Your task to perform on an android device: Open Google Chrome and click the shortcut for Amazon.com Image 0: 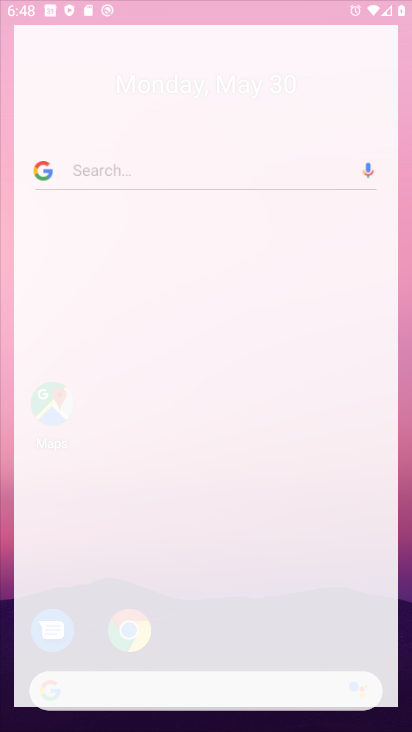
Step 0: drag from (311, 643) to (302, 86)
Your task to perform on an android device: Open Google Chrome and click the shortcut for Amazon.com Image 1: 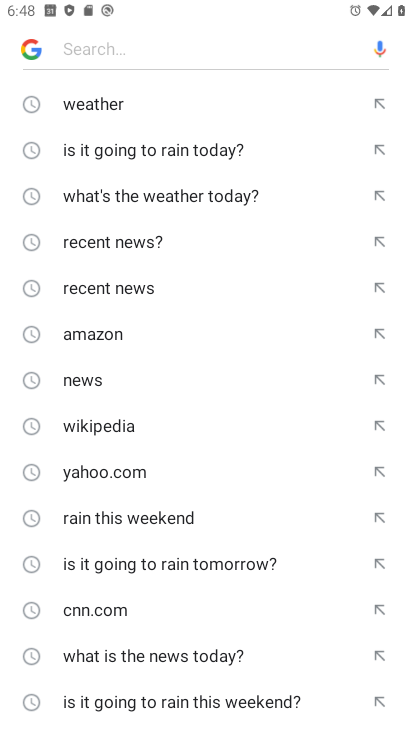
Step 1: press home button
Your task to perform on an android device: Open Google Chrome and click the shortcut for Amazon.com Image 2: 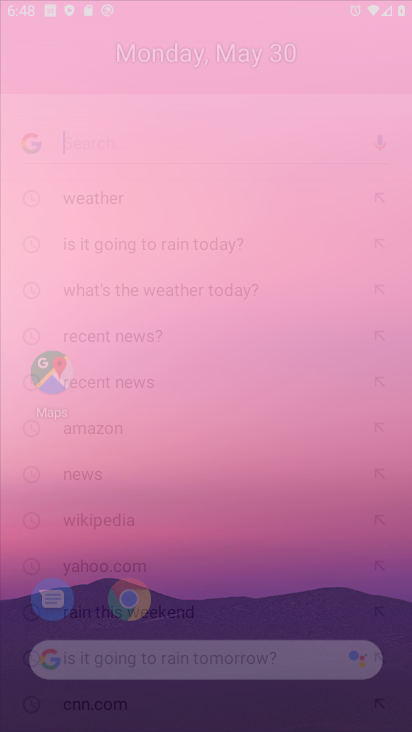
Step 2: drag from (334, 687) to (278, 40)
Your task to perform on an android device: Open Google Chrome and click the shortcut for Amazon.com Image 3: 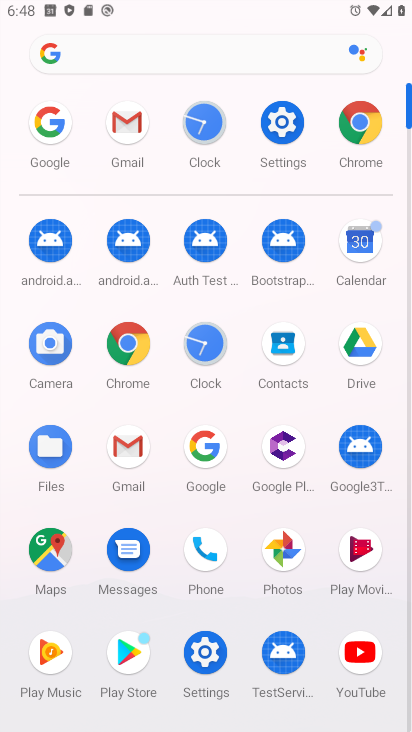
Step 3: click (369, 129)
Your task to perform on an android device: Open Google Chrome and click the shortcut for Amazon.com Image 4: 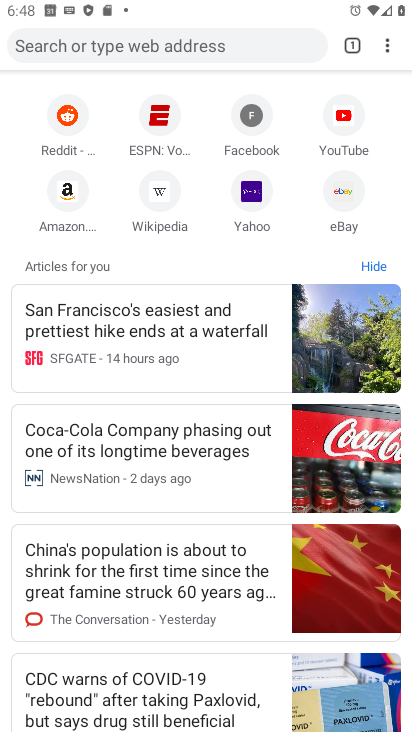
Step 4: click (356, 137)
Your task to perform on an android device: Open Google Chrome and click the shortcut for Amazon.com Image 5: 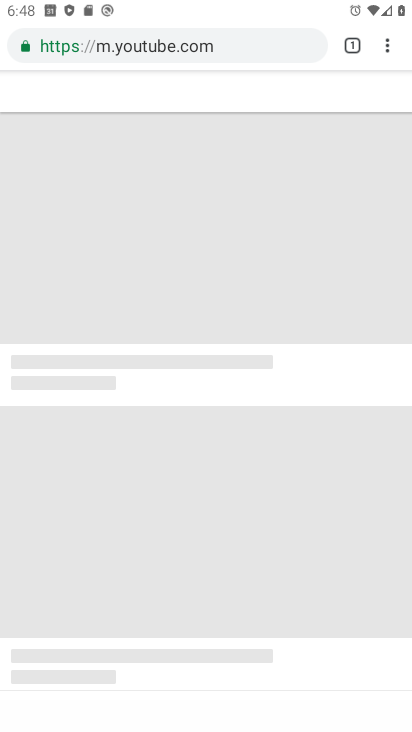
Step 5: press back button
Your task to perform on an android device: Open Google Chrome and click the shortcut for Amazon.com Image 6: 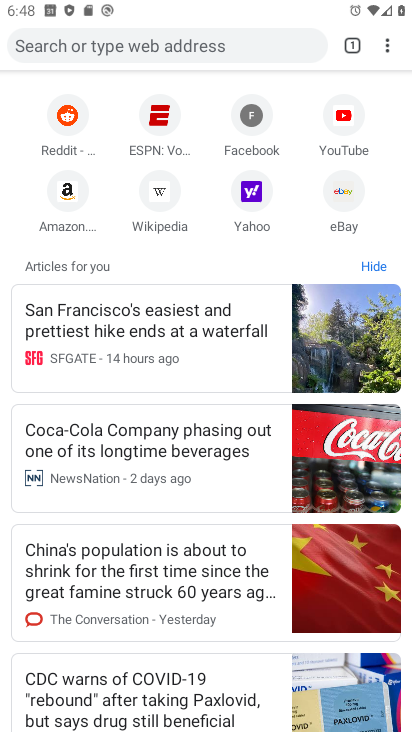
Step 6: click (81, 185)
Your task to perform on an android device: Open Google Chrome and click the shortcut for Amazon.com Image 7: 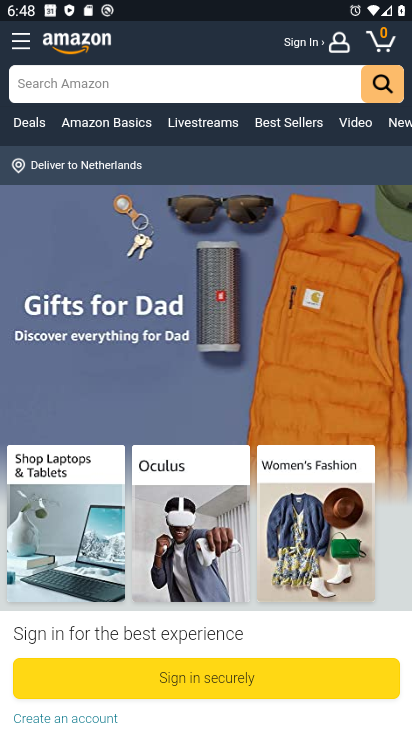
Step 7: task complete